Your task to perform on an android device: Open wifi settings Image 0: 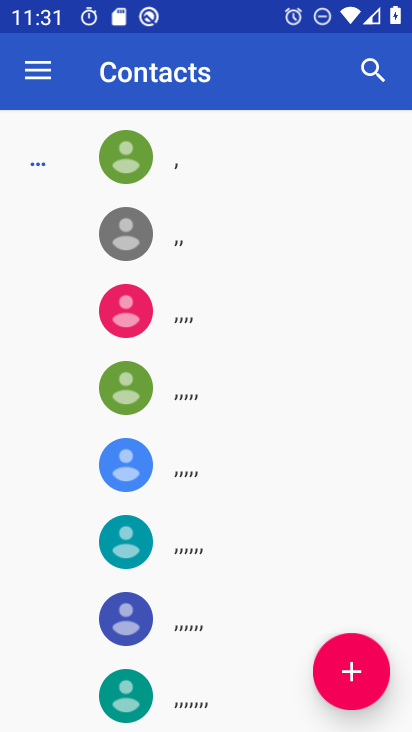
Step 0: press home button
Your task to perform on an android device: Open wifi settings Image 1: 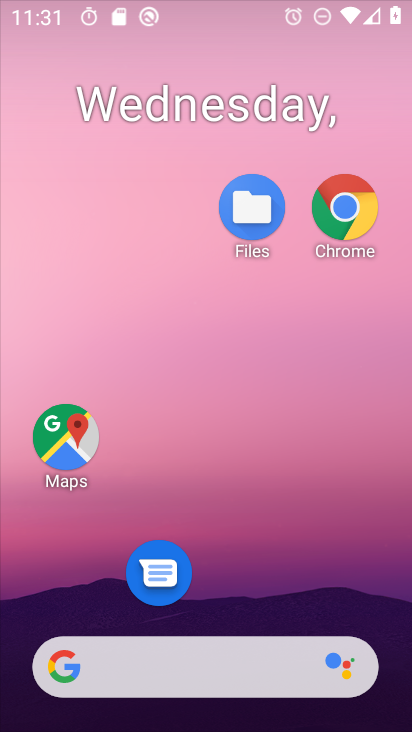
Step 1: drag from (224, 613) to (253, 74)
Your task to perform on an android device: Open wifi settings Image 2: 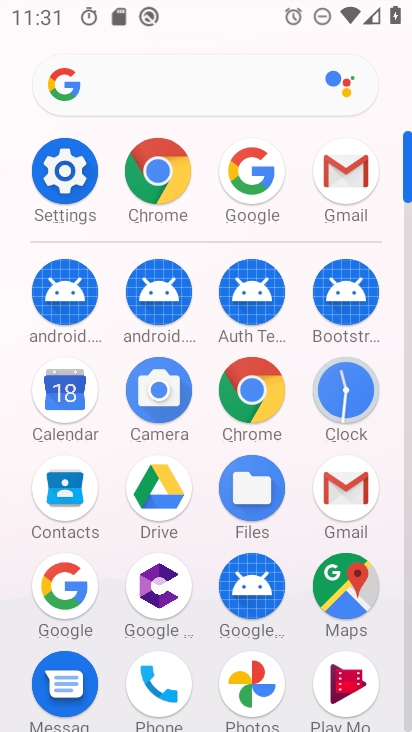
Step 2: click (75, 190)
Your task to perform on an android device: Open wifi settings Image 3: 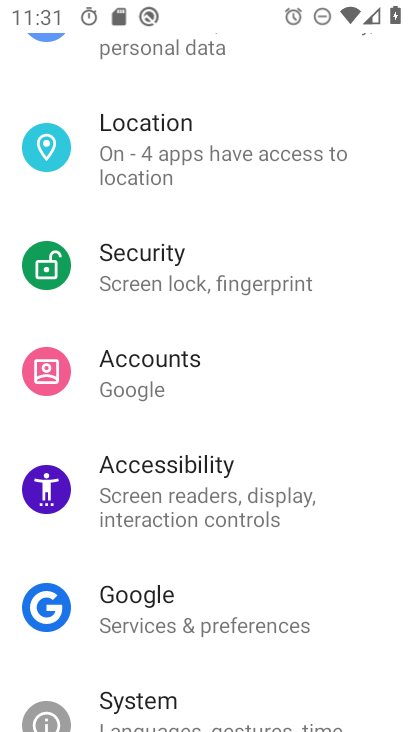
Step 3: drag from (208, 159) to (153, 731)
Your task to perform on an android device: Open wifi settings Image 4: 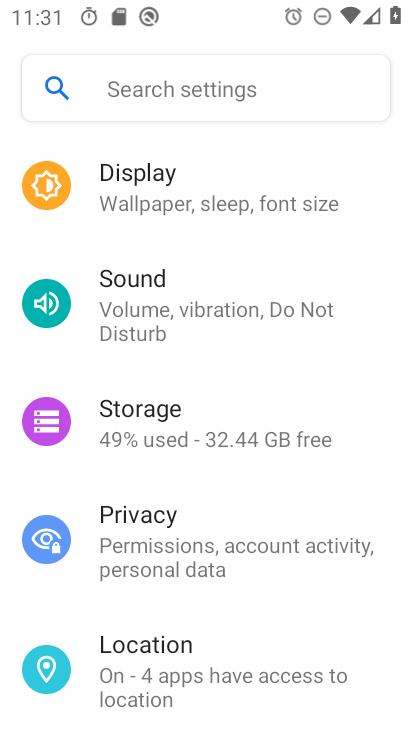
Step 4: drag from (169, 367) to (180, 723)
Your task to perform on an android device: Open wifi settings Image 5: 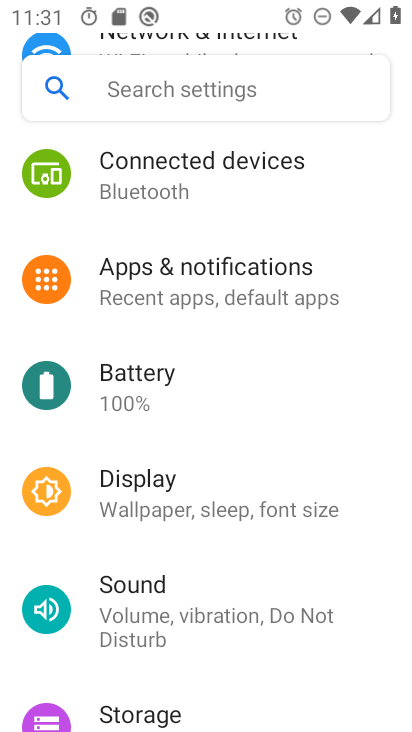
Step 5: drag from (183, 387) to (191, 726)
Your task to perform on an android device: Open wifi settings Image 6: 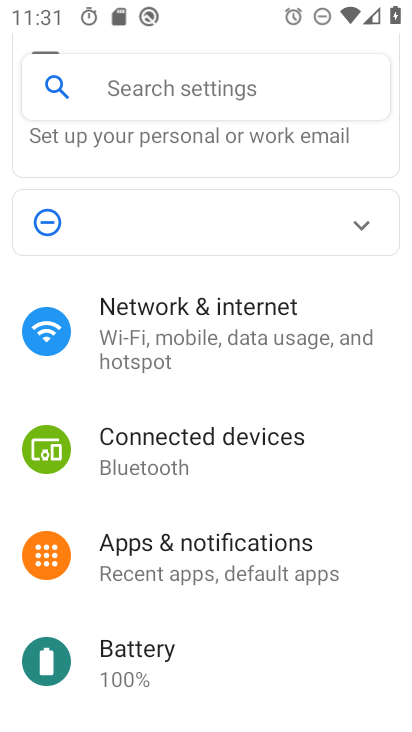
Step 6: click (193, 329)
Your task to perform on an android device: Open wifi settings Image 7: 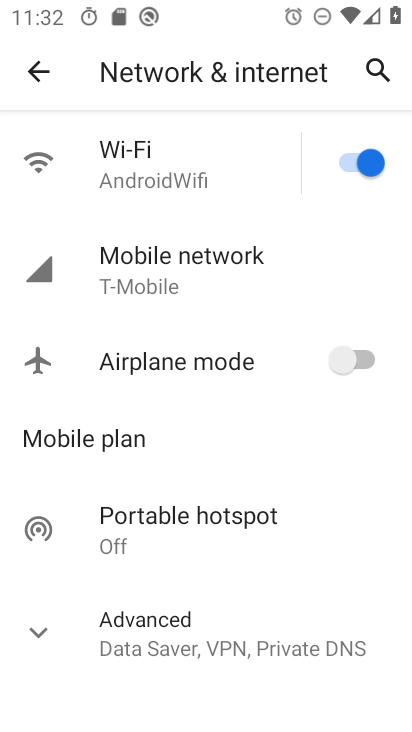
Step 7: click (155, 173)
Your task to perform on an android device: Open wifi settings Image 8: 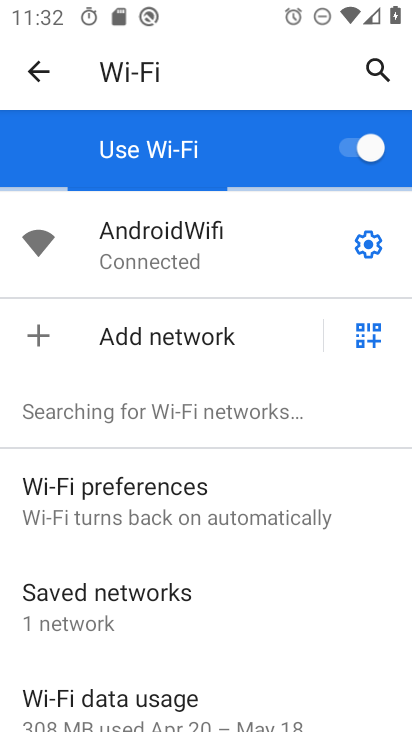
Step 8: task complete